Your task to perform on an android device: Play the last video I watched on Youtube Image 0: 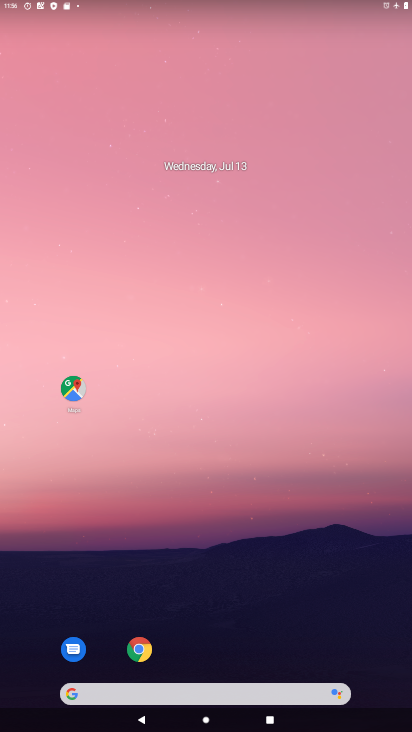
Step 0: drag from (201, 687) to (256, 267)
Your task to perform on an android device: Play the last video I watched on Youtube Image 1: 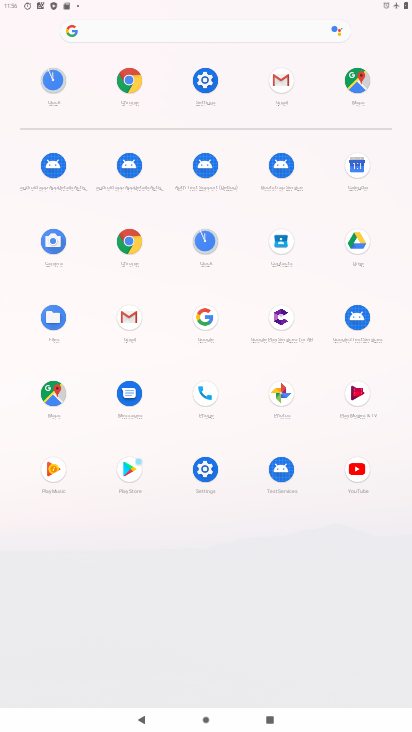
Step 1: click (358, 467)
Your task to perform on an android device: Play the last video I watched on Youtube Image 2: 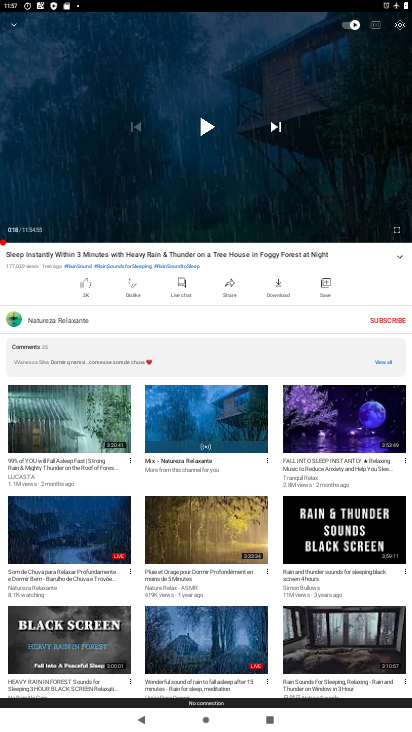
Step 2: press back button
Your task to perform on an android device: Play the last video I watched on Youtube Image 3: 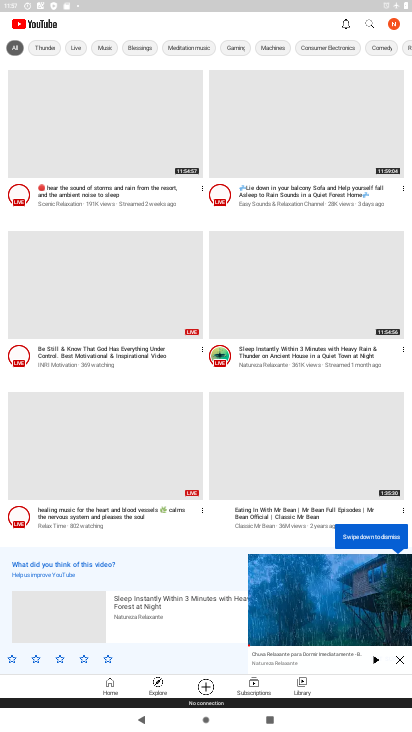
Step 3: click (299, 684)
Your task to perform on an android device: Play the last video I watched on Youtube Image 4: 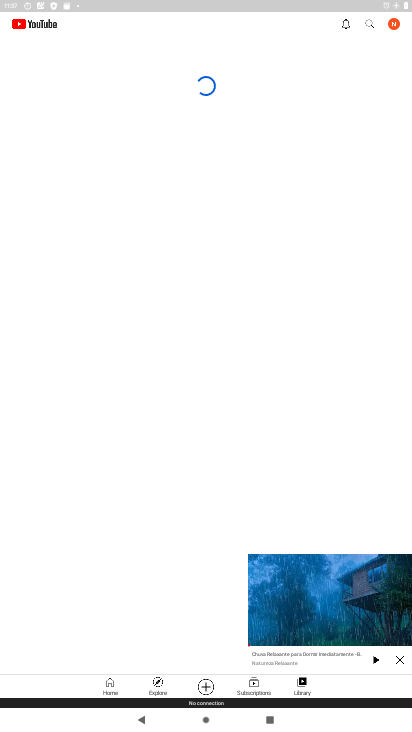
Step 4: click (399, 659)
Your task to perform on an android device: Play the last video I watched on Youtube Image 5: 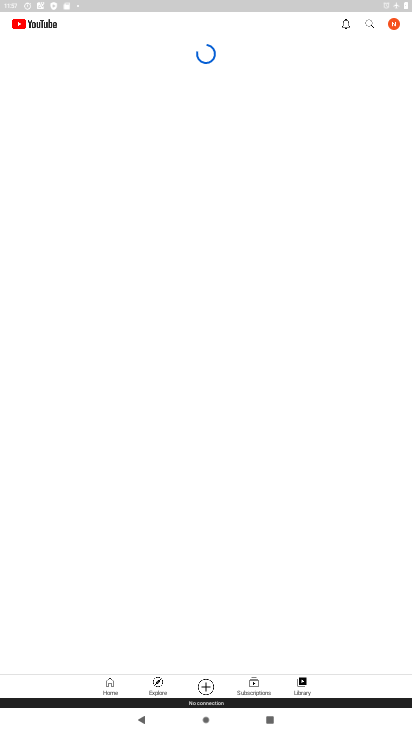
Step 5: click (301, 681)
Your task to perform on an android device: Play the last video I watched on Youtube Image 6: 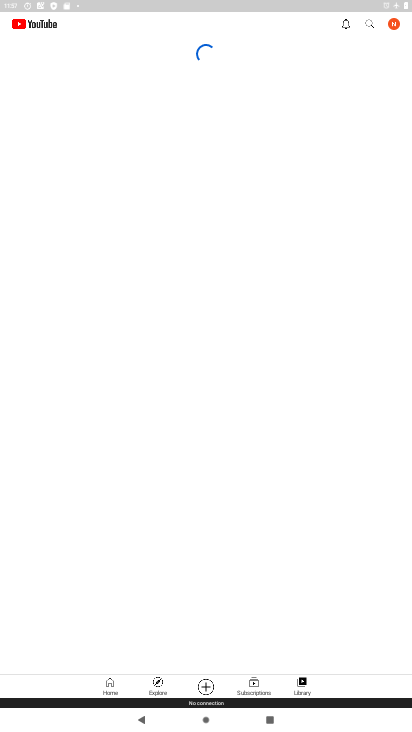
Step 6: click (104, 680)
Your task to perform on an android device: Play the last video I watched on Youtube Image 7: 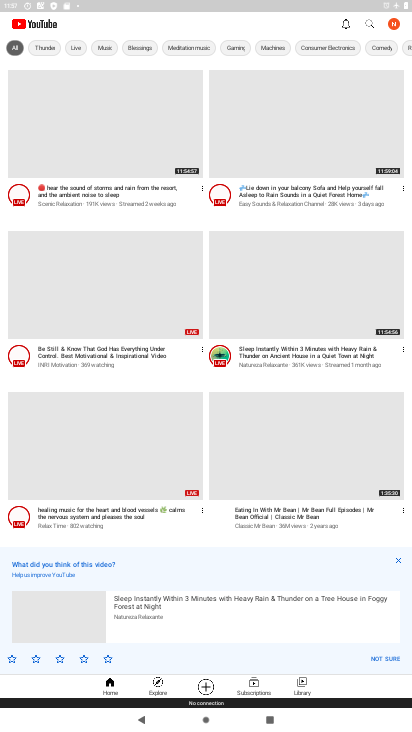
Step 7: click (298, 683)
Your task to perform on an android device: Play the last video I watched on Youtube Image 8: 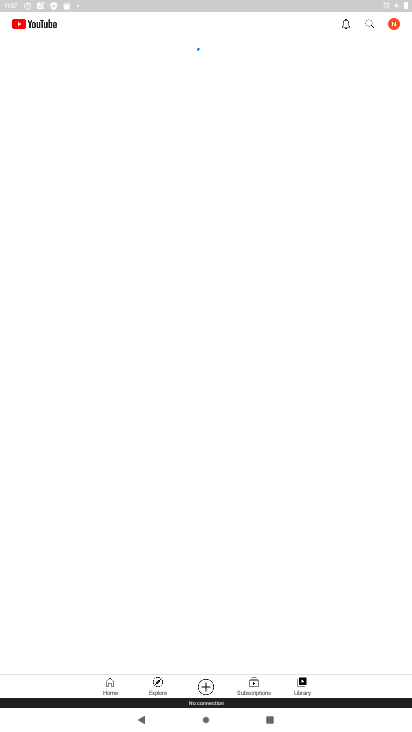
Step 8: click (252, 688)
Your task to perform on an android device: Play the last video I watched on Youtube Image 9: 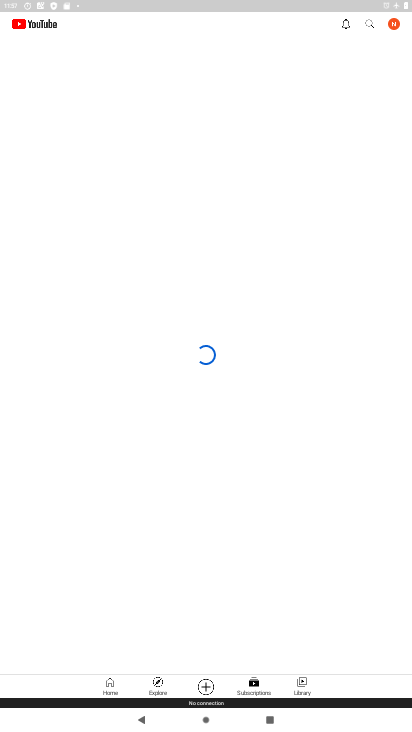
Step 9: press home button
Your task to perform on an android device: Play the last video I watched on Youtube Image 10: 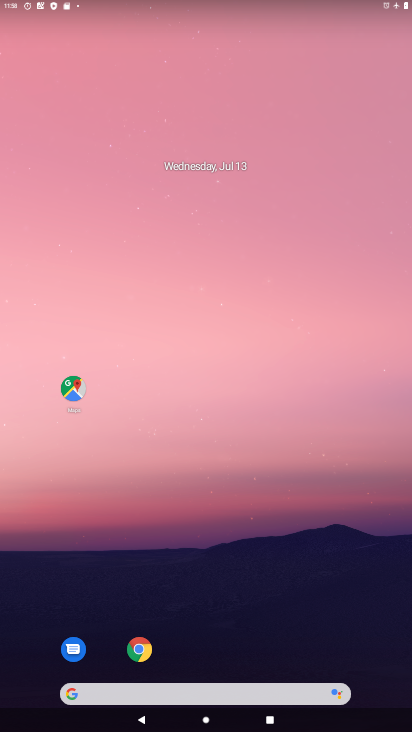
Step 10: drag from (228, 487) to (273, 137)
Your task to perform on an android device: Play the last video I watched on Youtube Image 11: 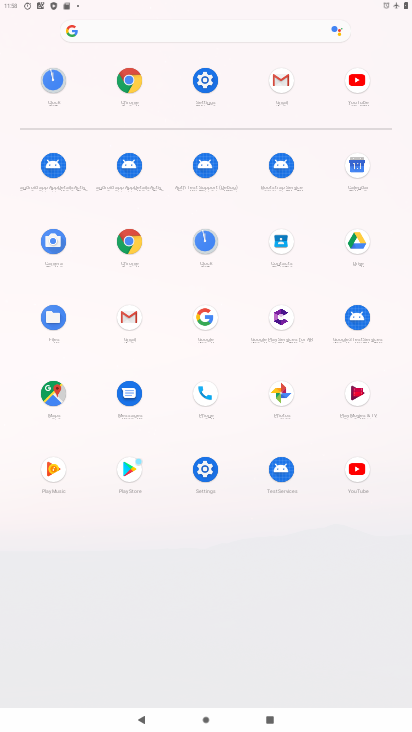
Step 11: click (358, 470)
Your task to perform on an android device: Play the last video I watched on Youtube Image 12: 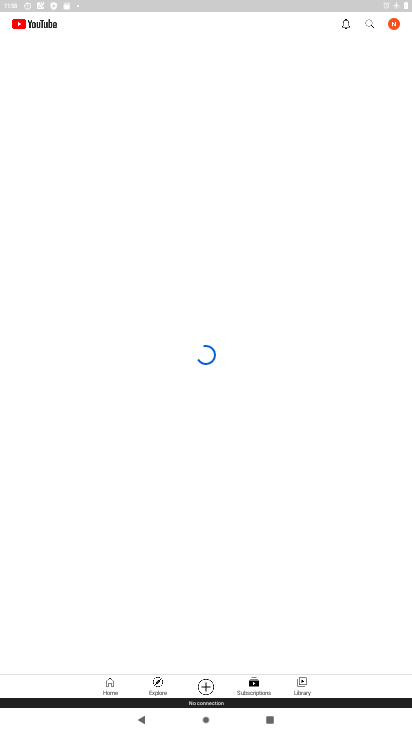
Step 12: click (301, 680)
Your task to perform on an android device: Play the last video I watched on Youtube Image 13: 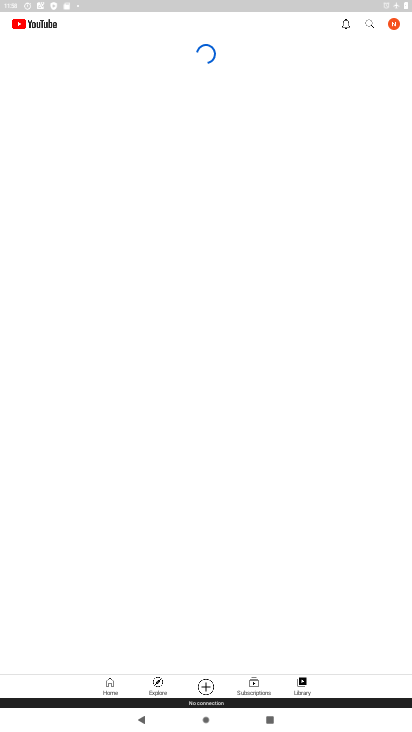
Step 13: task complete